Your task to perform on an android device: toggle show notifications on the lock screen Image 0: 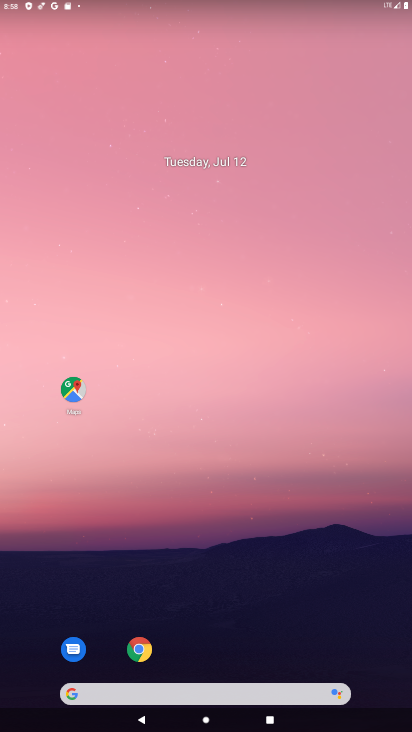
Step 0: drag from (287, 661) to (309, 90)
Your task to perform on an android device: toggle show notifications on the lock screen Image 1: 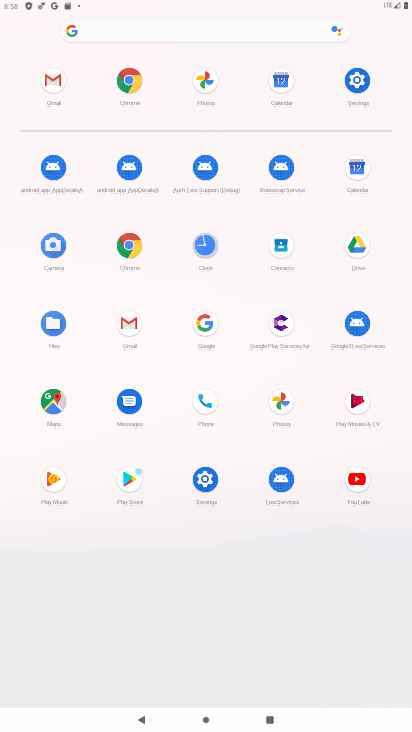
Step 1: click (342, 101)
Your task to perform on an android device: toggle show notifications on the lock screen Image 2: 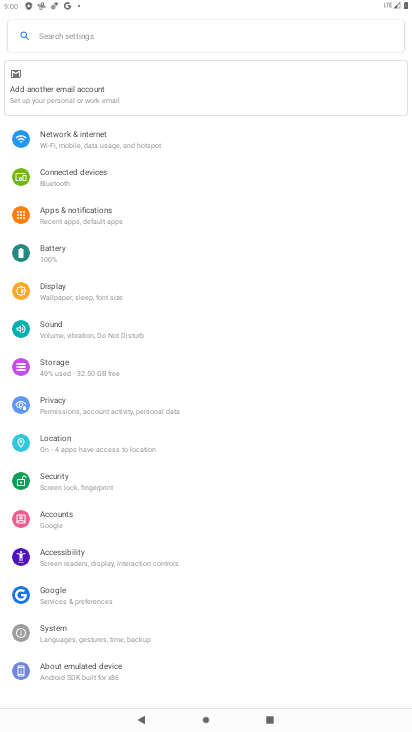
Step 2: click (134, 212)
Your task to perform on an android device: toggle show notifications on the lock screen Image 3: 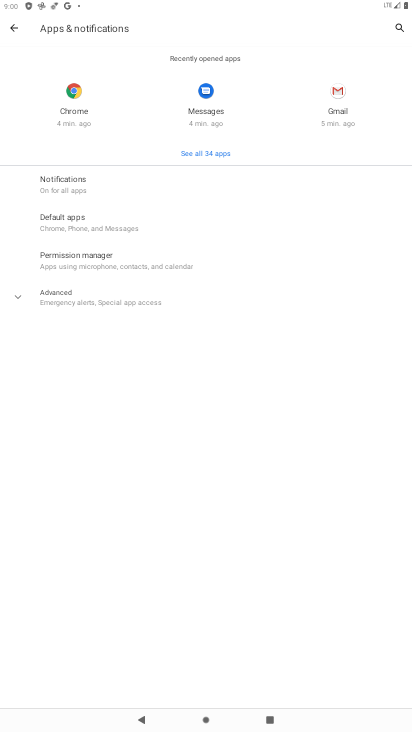
Step 3: click (132, 191)
Your task to perform on an android device: toggle show notifications on the lock screen Image 4: 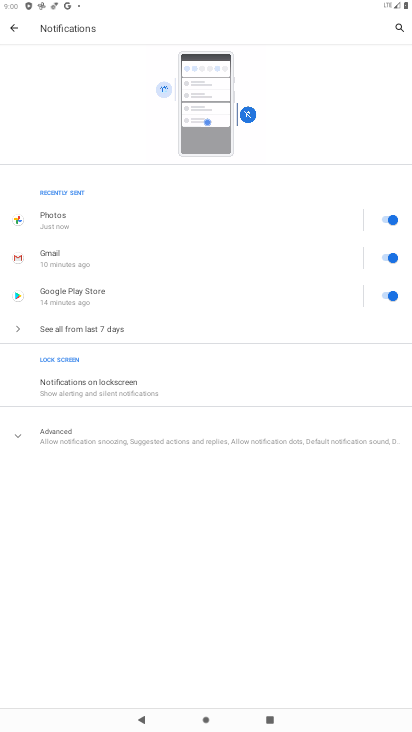
Step 4: click (107, 375)
Your task to perform on an android device: toggle show notifications on the lock screen Image 5: 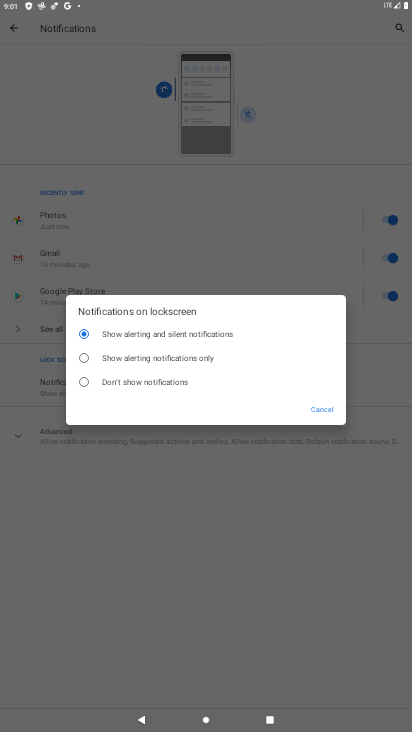
Step 5: click (125, 357)
Your task to perform on an android device: toggle show notifications on the lock screen Image 6: 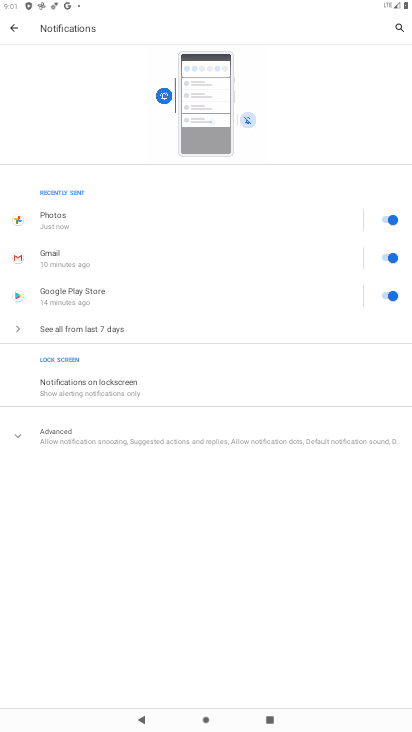
Step 6: task complete